Your task to perform on an android device: Go to wifi settings Image 0: 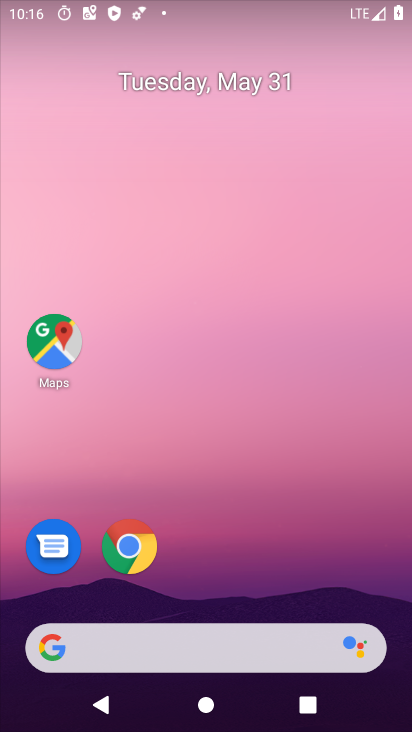
Step 0: drag from (270, 530) to (320, 3)
Your task to perform on an android device: Go to wifi settings Image 1: 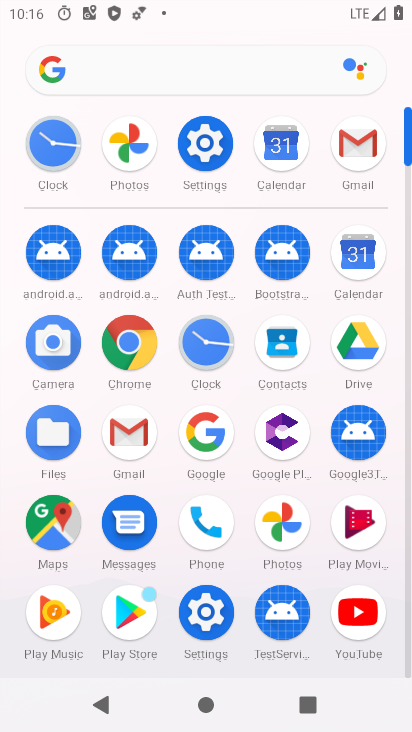
Step 1: click (206, 130)
Your task to perform on an android device: Go to wifi settings Image 2: 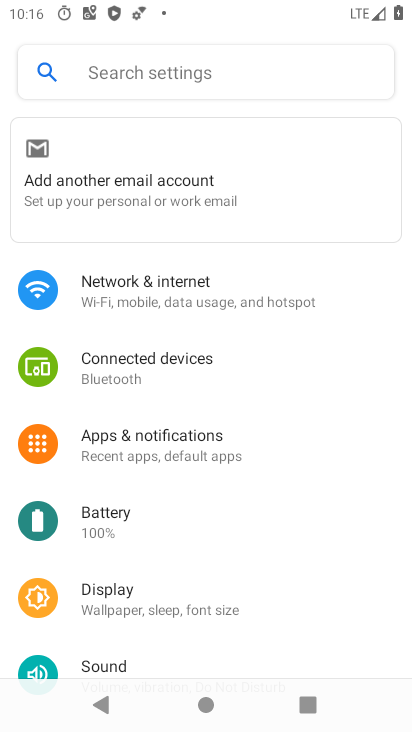
Step 2: click (197, 285)
Your task to perform on an android device: Go to wifi settings Image 3: 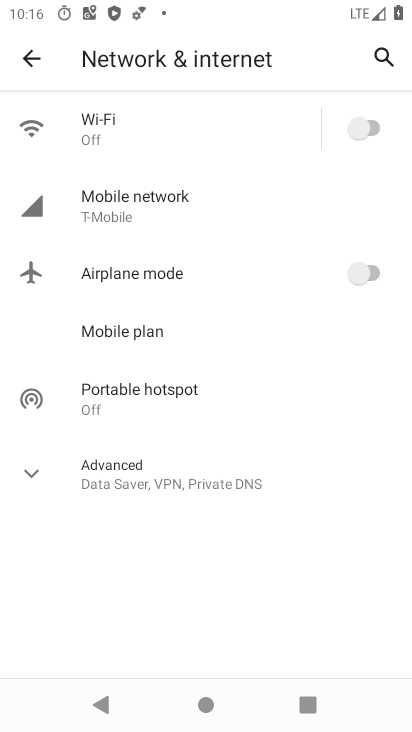
Step 3: click (87, 99)
Your task to perform on an android device: Go to wifi settings Image 4: 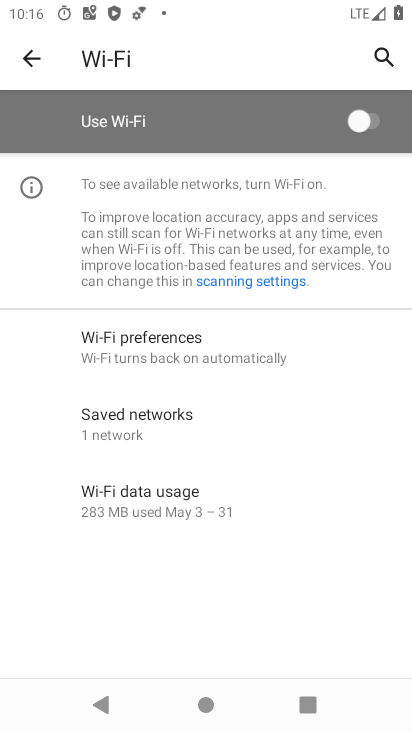
Step 4: task complete